Your task to perform on an android device: check battery use Image 0: 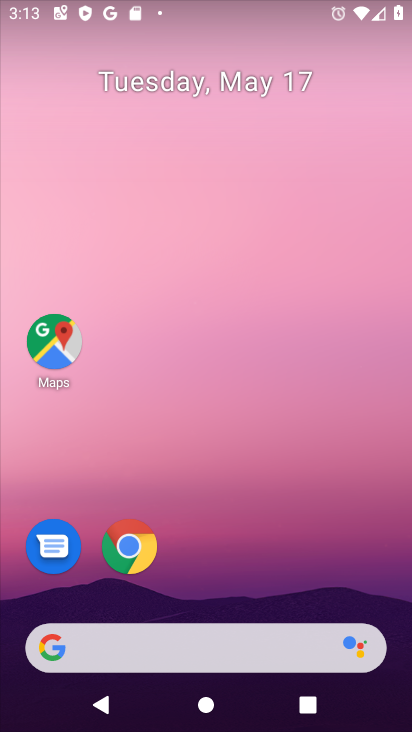
Step 0: drag from (401, 571) to (404, 426)
Your task to perform on an android device: check battery use Image 1: 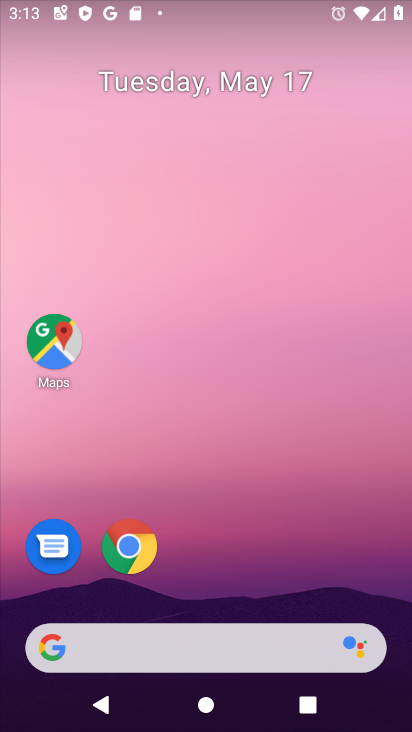
Step 1: drag from (400, 657) to (354, 314)
Your task to perform on an android device: check battery use Image 2: 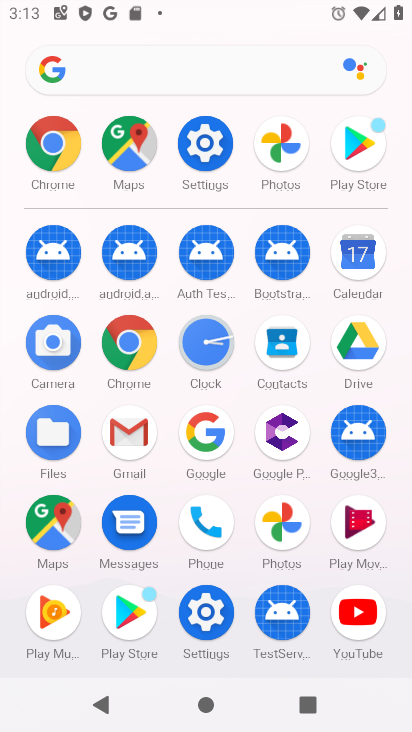
Step 2: click (196, 147)
Your task to perform on an android device: check battery use Image 3: 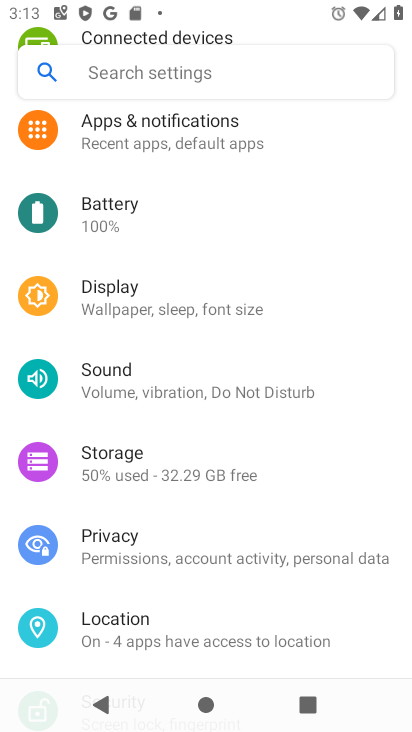
Step 3: click (106, 203)
Your task to perform on an android device: check battery use Image 4: 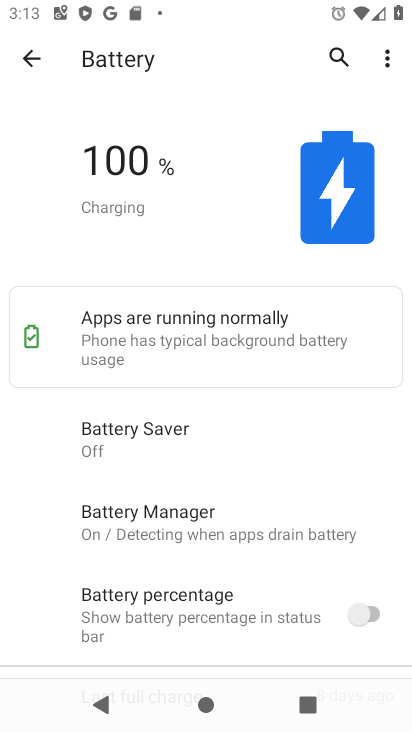
Step 4: click (384, 46)
Your task to perform on an android device: check battery use Image 5: 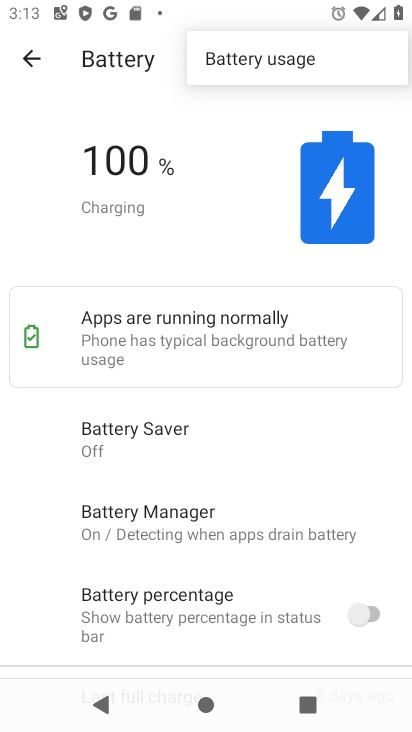
Step 5: click (337, 64)
Your task to perform on an android device: check battery use Image 6: 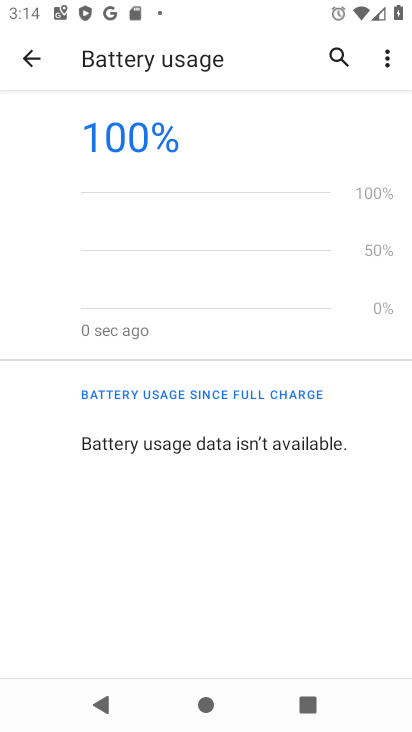
Step 6: task complete